Your task to perform on an android device: check the backup settings in the google photos Image 0: 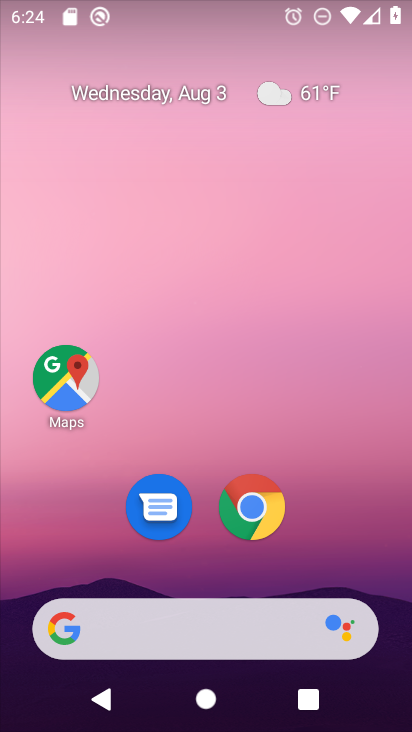
Step 0: drag from (346, 536) to (396, 65)
Your task to perform on an android device: check the backup settings in the google photos Image 1: 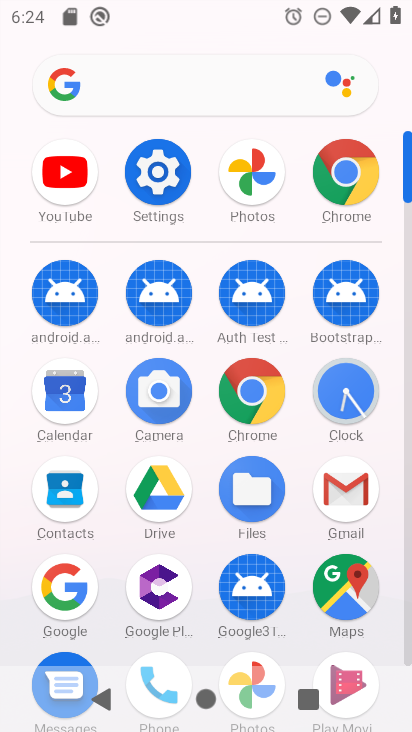
Step 1: drag from (306, 562) to (313, 287)
Your task to perform on an android device: check the backup settings in the google photos Image 2: 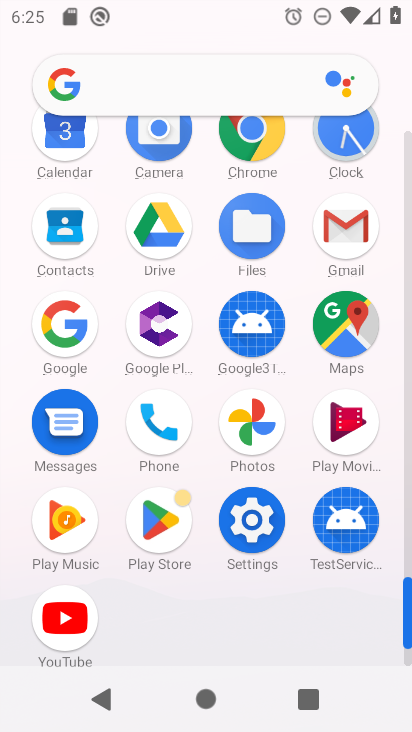
Step 2: click (252, 436)
Your task to perform on an android device: check the backup settings in the google photos Image 3: 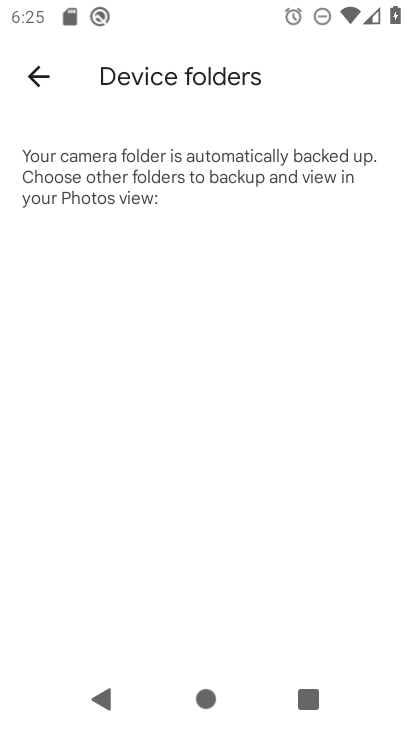
Step 3: click (36, 70)
Your task to perform on an android device: check the backup settings in the google photos Image 4: 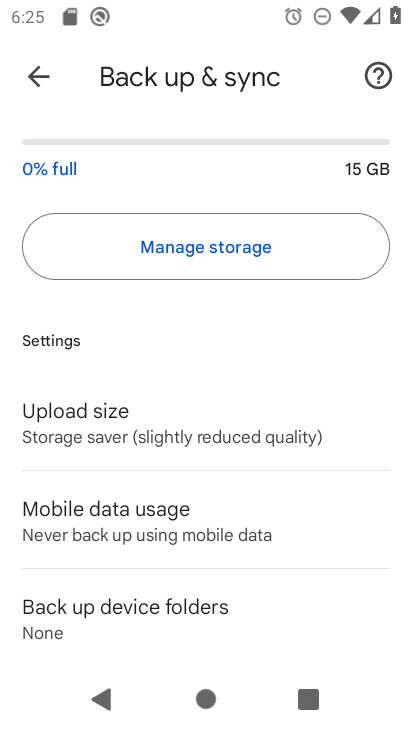
Step 4: click (208, 437)
Your task to perform on an android device: check the backup settings in the google photos Image 5: 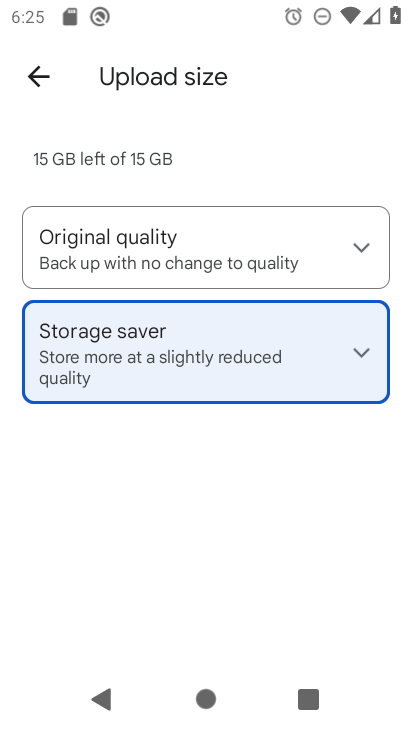
Step 5: click (230, 271)
Your task to perform on an android device: check the backup settings in the google photos Image 6: 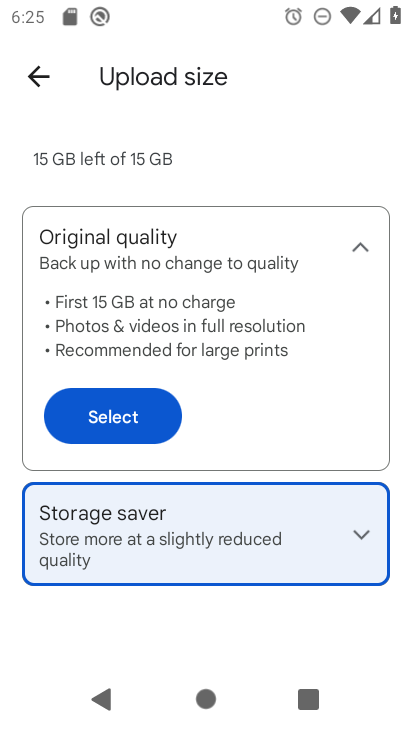
Step 6: click (100, 420)
Your task to perform on an android device: check the backup settings in the google photos Image 7: 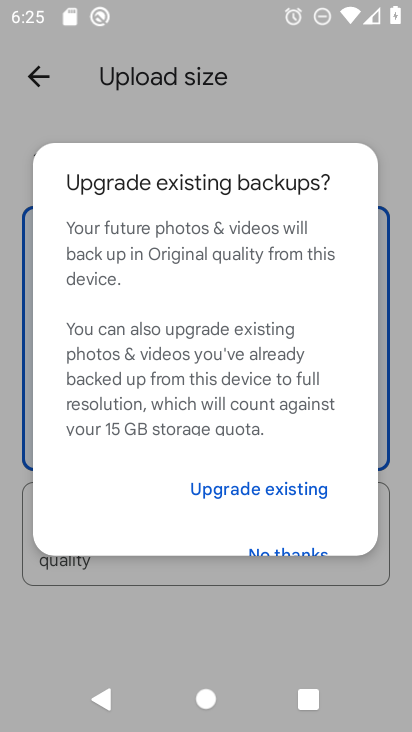
Step 7: drag from (271, 527) to (331, 190)
Your task to perform on an android device: check the backup settings in the google photos Image 8: 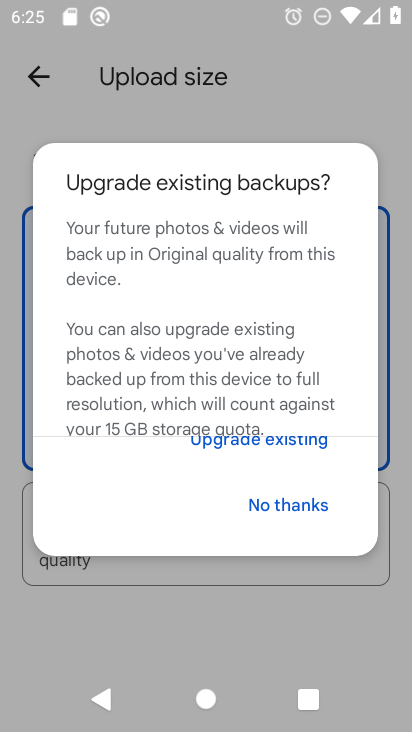
Step 8: click (285, 509)
Your task to perform on an android device: check the backup settings in the google photos Image 9: 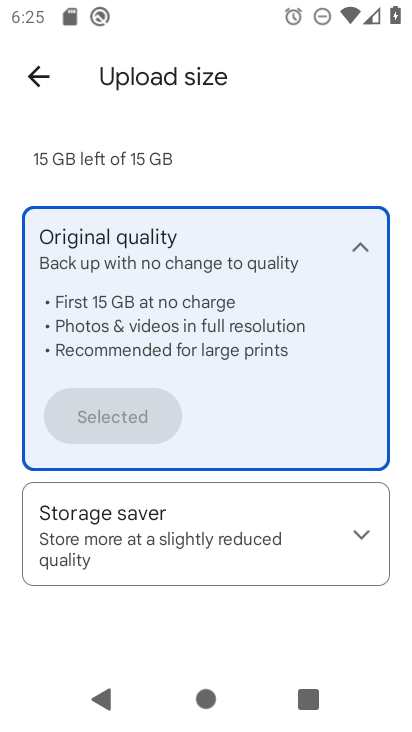
Step 9: task complete